Your task to perform on an android device: Go to Google maps Image 0: 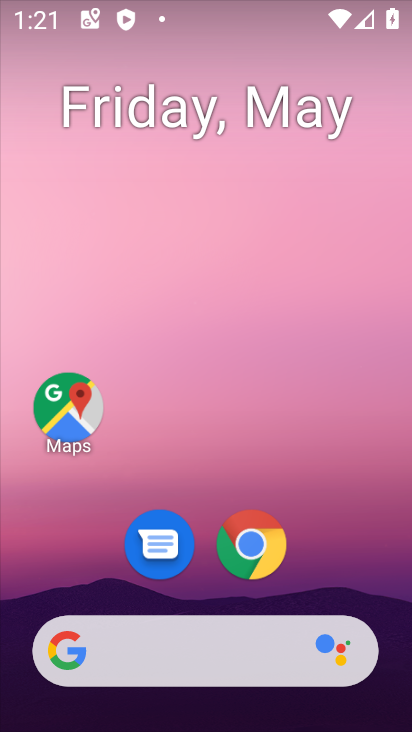
Step 0: drag from (42, 528) to (128, 292)
Your task to perform on an android device: Go to Google maps Image 1: 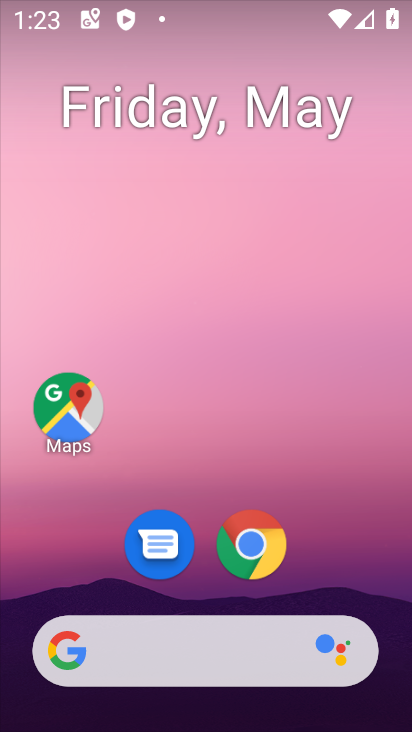
Step 1: click (47, 410)
Your task to perform on an android device: Go to Google maps Image 2: 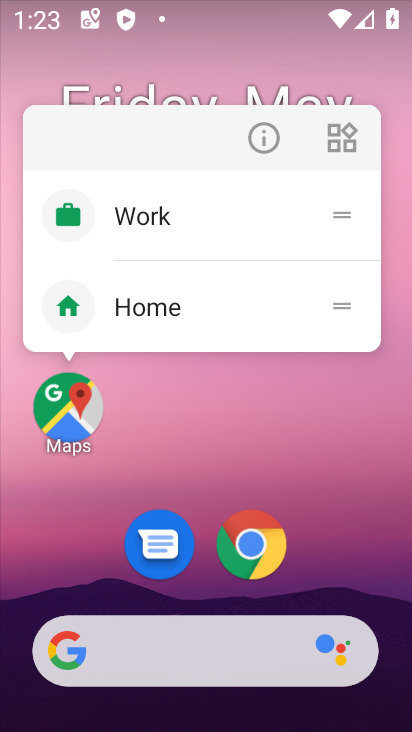
Step 2: click (265, 144)
Your task to perform on an android device: Go to Google maps Image 3: 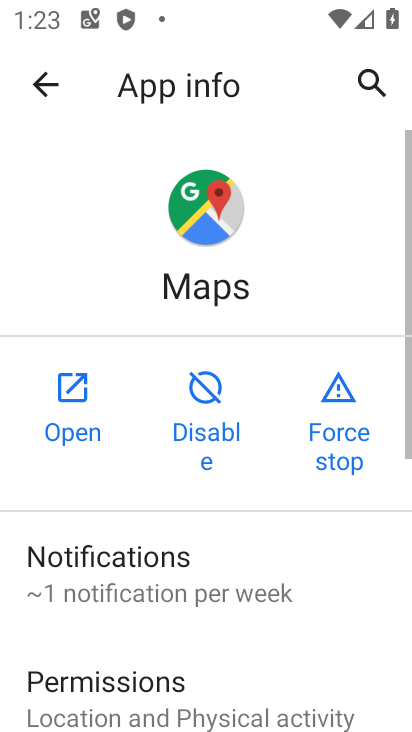
Step 3: click (61, 410)
Your task to perform on an android device: Go to Google maps Image 4: 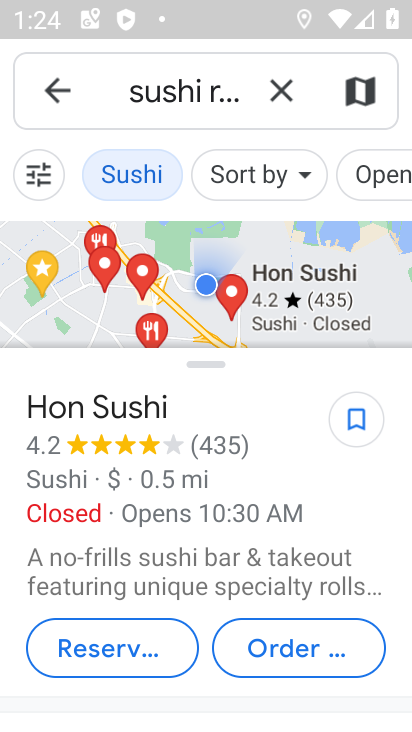
Step 4: task complete